Your task to perform on an android device: Open Yahoo.com Image 0: 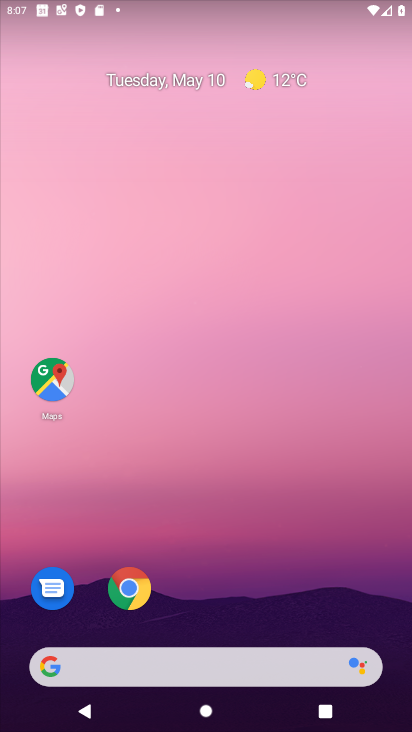
Step 0: click (52, 393)
Your task to perform on an android device: Open Yahoo.com Image 1: 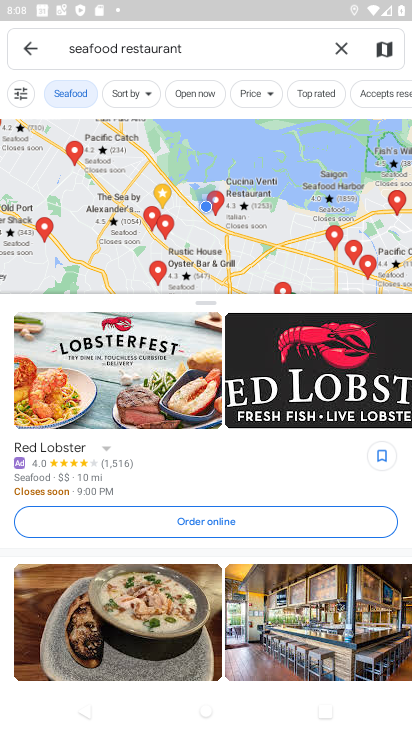
Step 1: press home button
Your task to perform on an android device: Open Yahoo.com Image 2: 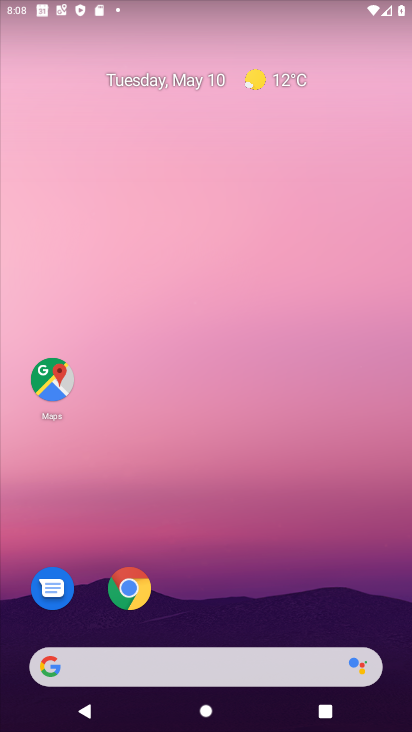
Step 2: click (134, 586)
Your task to perform on an android device: Open Yahoo.com Image 3: 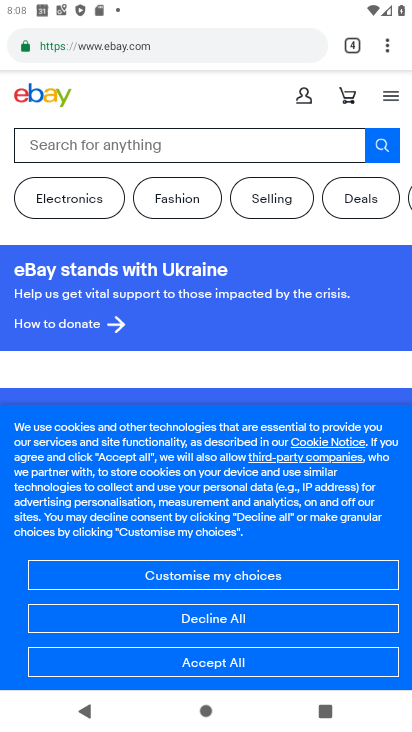
Step 3: click (350, 56)
Your task to perform on an android device: Open Yahoo.com Image 4: 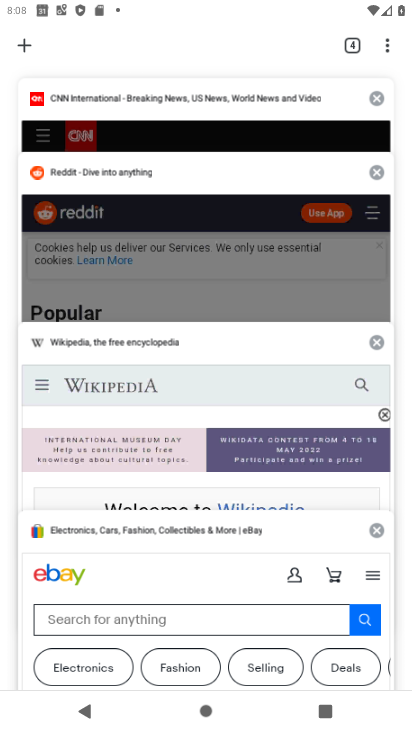
Step 4: click (33, 50)
Your task to perform on an android device: Open Yahoo.com Image 5: 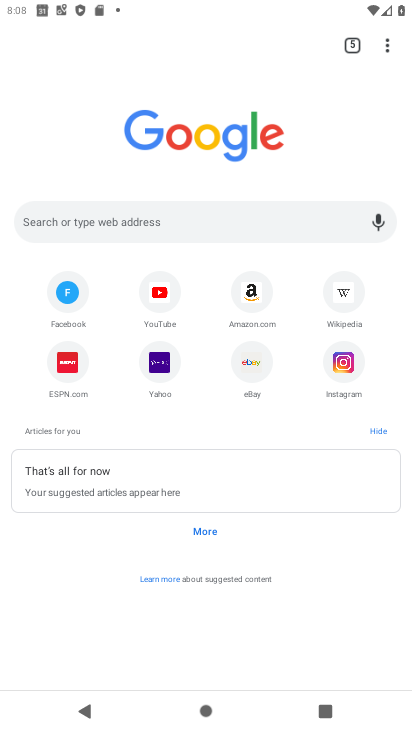
Step 5: click (167, 374)
Your task to perform on an android device: Open Yahoo.com Image 6: 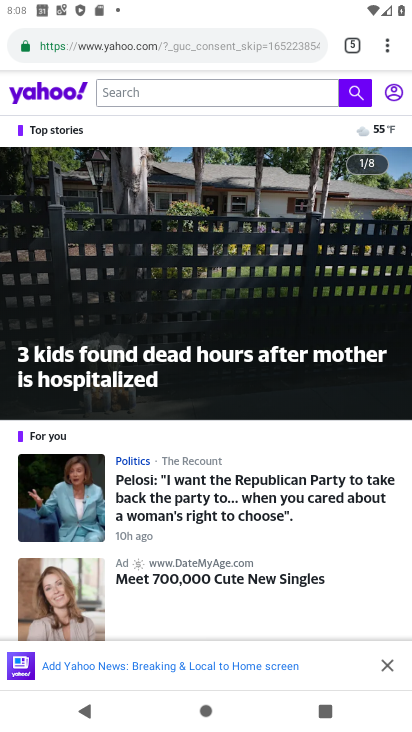
Step 6: task complete